Your task to perform on an android device: install app "Calculator" Image 0: 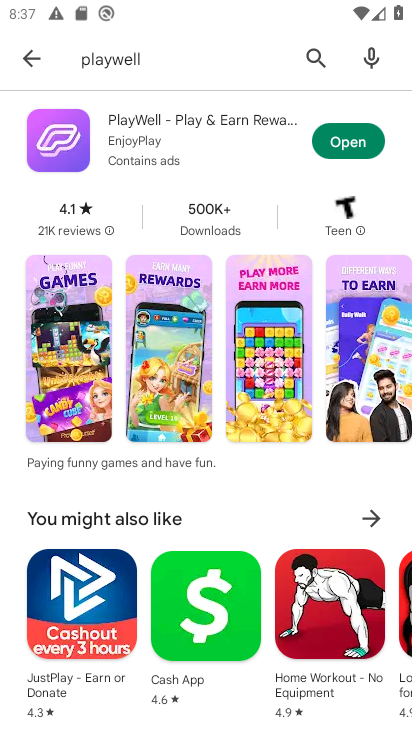
Step 0: click (310, 58)
Your task to perform on an android device: install app "Calculator" Image 1: 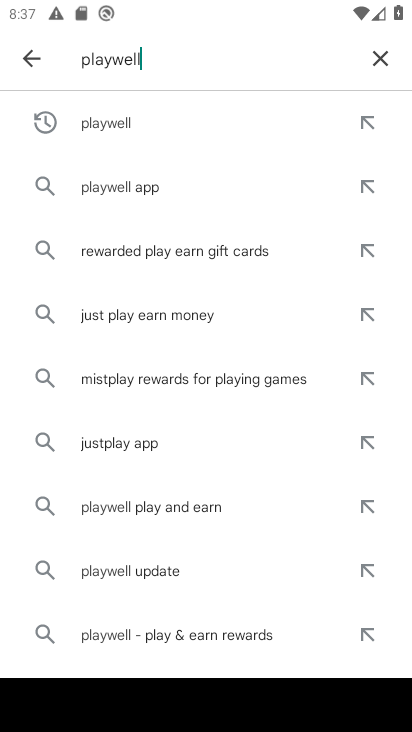
Step 1: click (373, 50)
Your task to perform on an android device: install app "Calculator" Image 2: 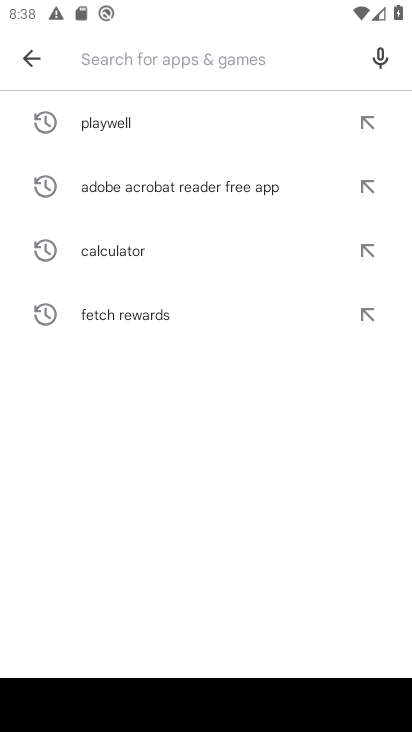
Step 2: type "Calculator"
Your task to perform on an android device: install app "Calculator" Image 3: 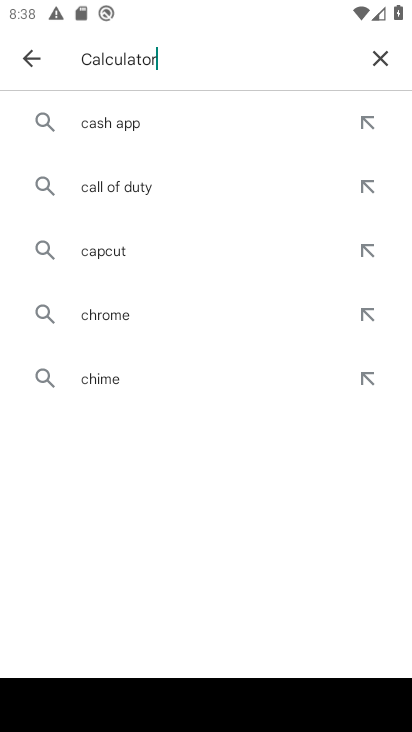
Step 3: type ""
Your task to perform on an android device: install app "Calculator" Image 4: 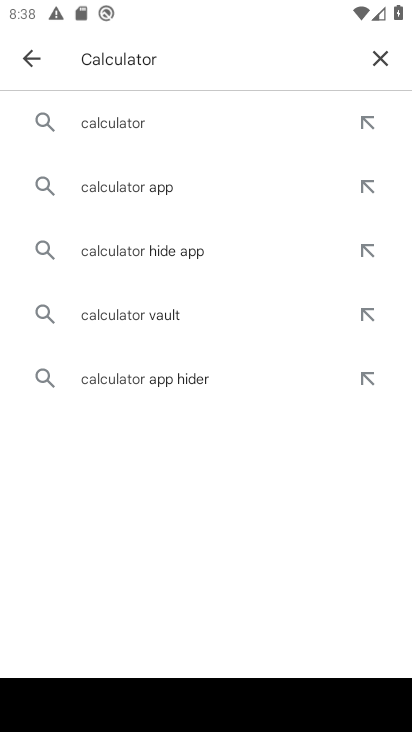
Step 4: click (160, 125)
Your task to perform on an android device: install app "Calculator" Image 5: 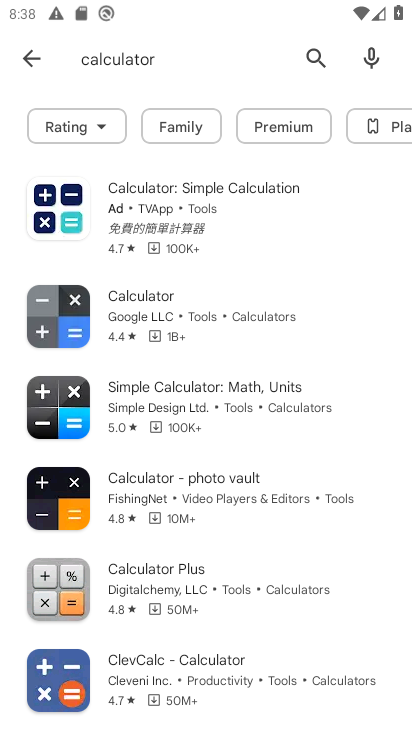
Step 5: click (191, 326)
Your task to perform on an android device: install app "Calculator" Image 6: 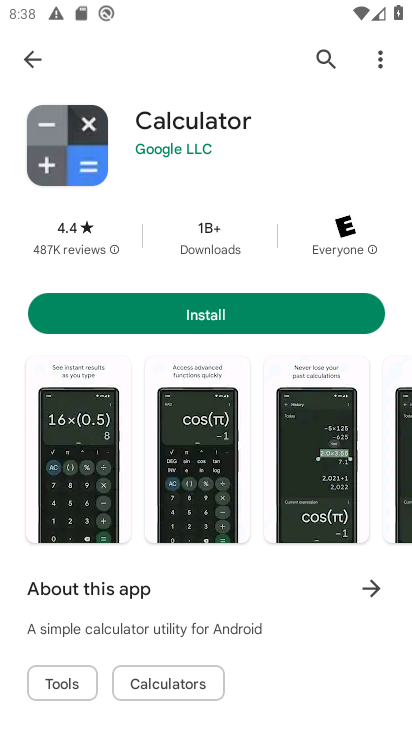
Step 6: click (194, 323)
Your task to perform on an android device: install app "Calculator" Image 7: 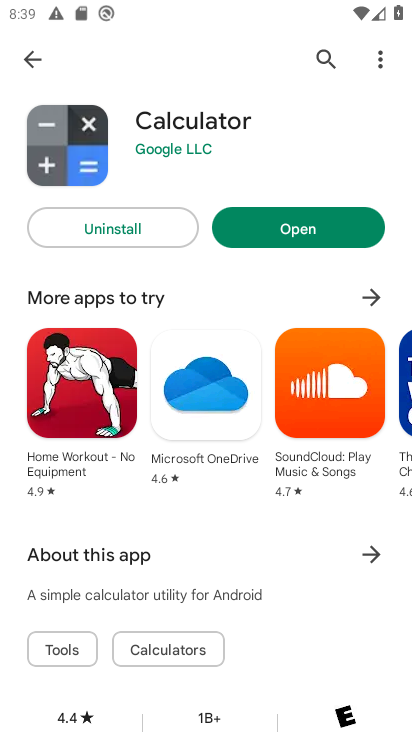
Step 7: task complete